Your task to perform on an android device: Go to privacy settings Image 0: 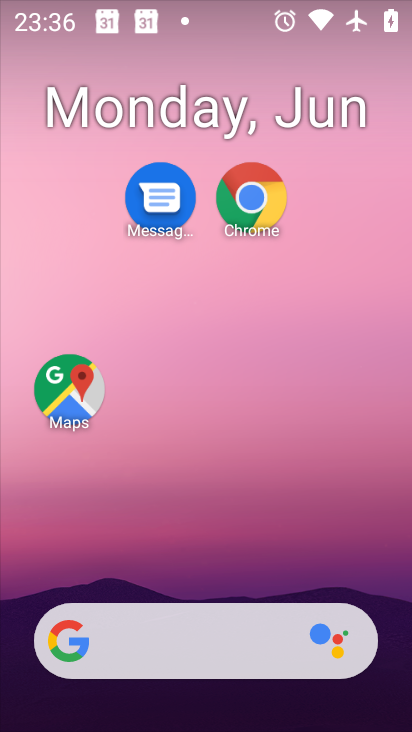
Step 0: drag from (231, 552) to (197, 108)
Your task to perform on an android device: Go to privacy settings Image 1: 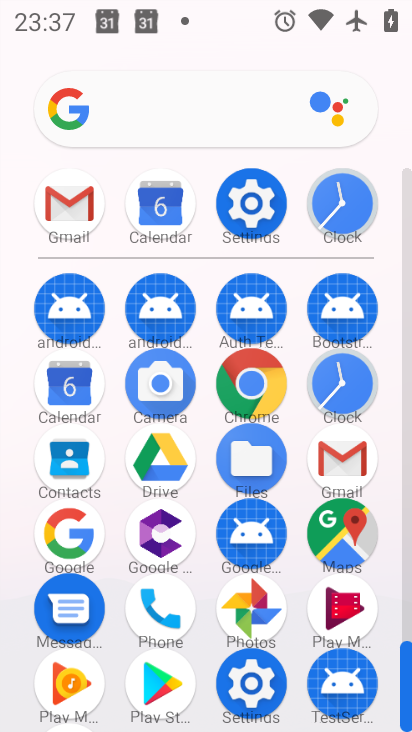
Step 1: click (228, 214)
Your task to perform on an android device: Go to privacy settings Image 2: 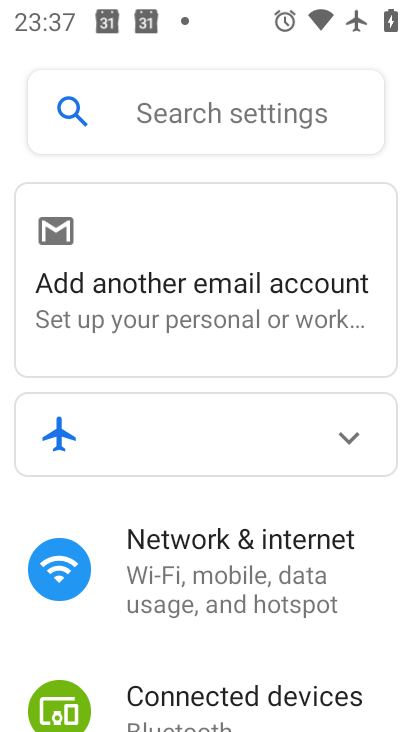
Step 2: drag from (132, 626) to (186, 257)
Your task to perform on an android device: Go to privacy settings Image 3: 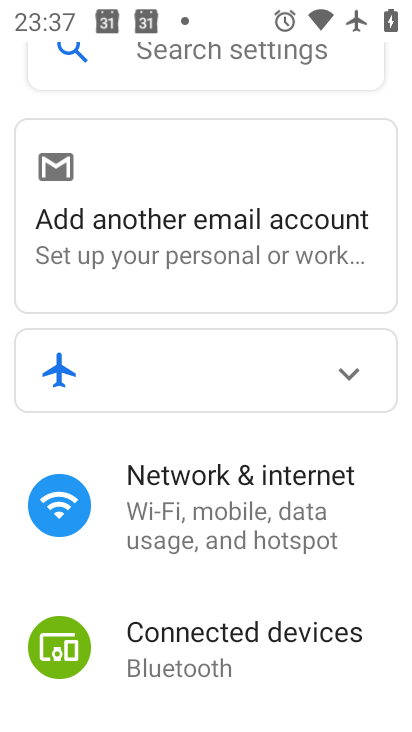
Step 3: drag from (198, 561) to (219, 242)
Your task to perform on an android device: Go to privacy settings Image 4: 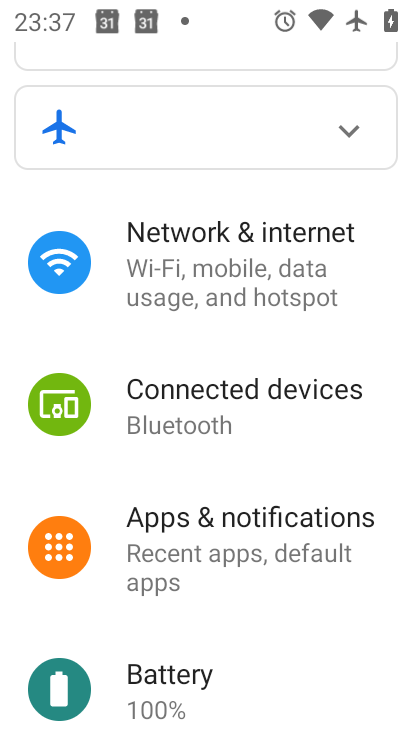
Step 4: drag from (208, 538) to (224, 183)
Your task to perform on an android device: Go to privacy settings Image 5: 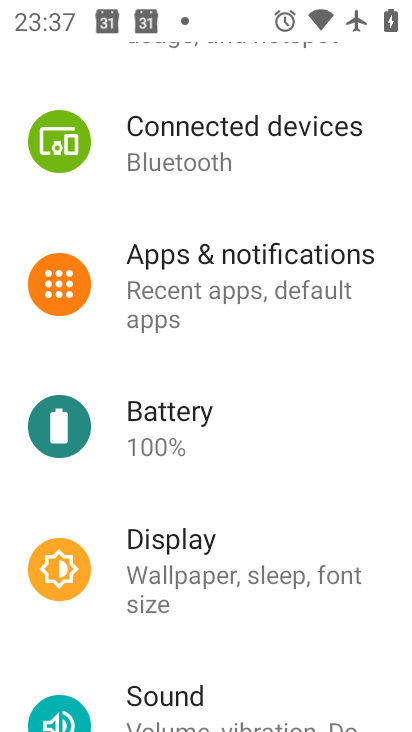
Step 5: drag from (193, 558) to (212, 293)
Your task to perform on an android device: Go to privacy settings Image 6: 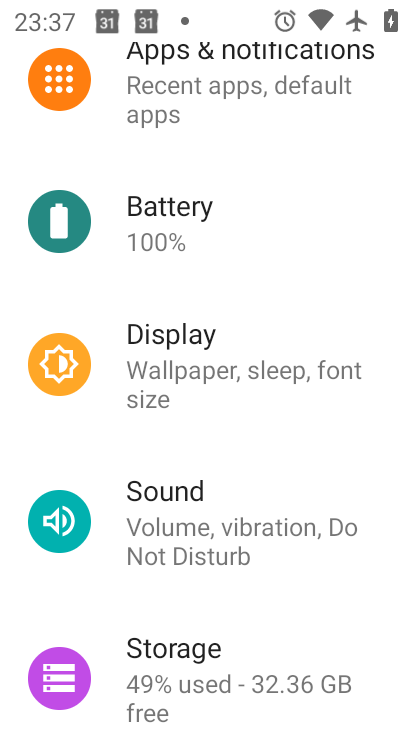
Step 6: drag from (218, 639) to (230, 275)
Your task to perform on an android device: Go to privacy settings Image 7: 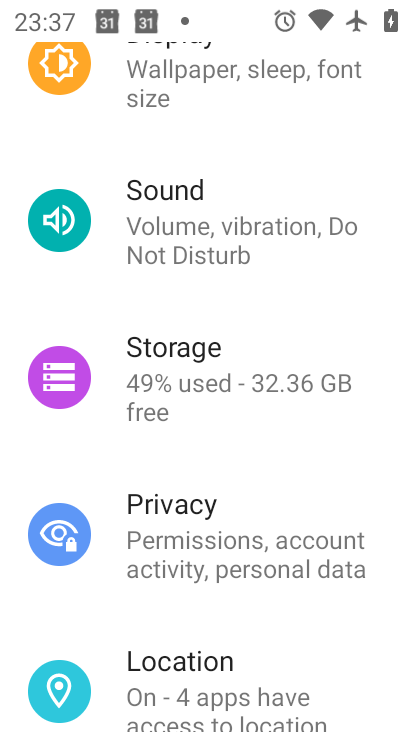
Step 7: click (190, 542)
Your task to perform on an android device: Go to privacy settings Image 8: 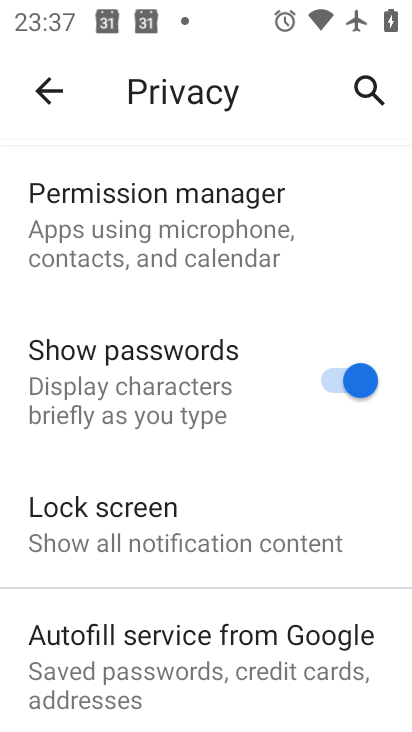
Step 8: task complete